Your task to perform on an android device: turn off notifications settings in the gmail app Image 0: 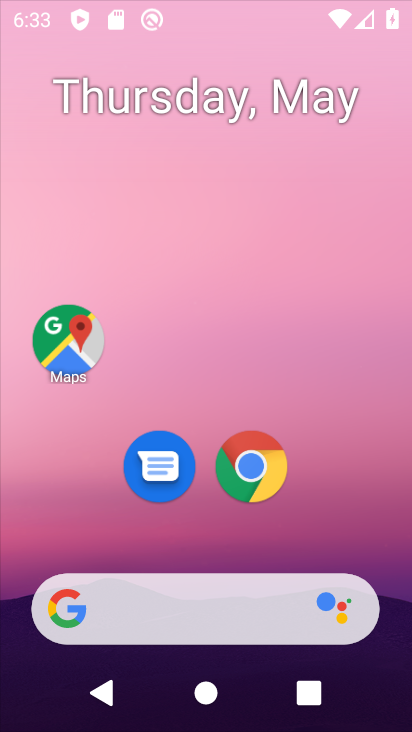
Step 0: click (341, 19)
Your task to perform on an android device: turn off notifications settings in the gmail app Image 1: 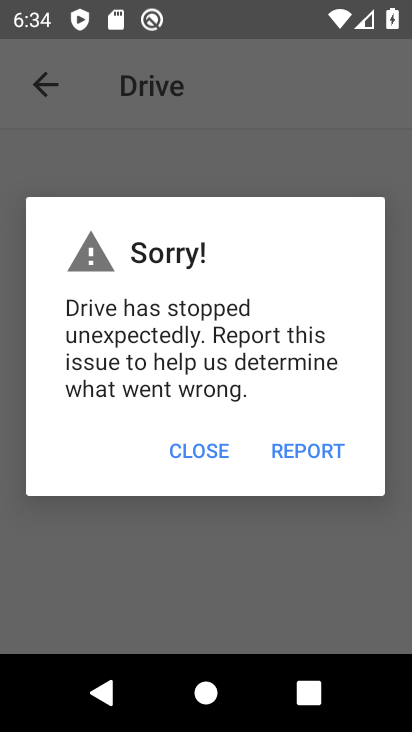
Step 1: press home button
Your task to perform on an android device: turn off notifications settings in the gmail app Image 2: 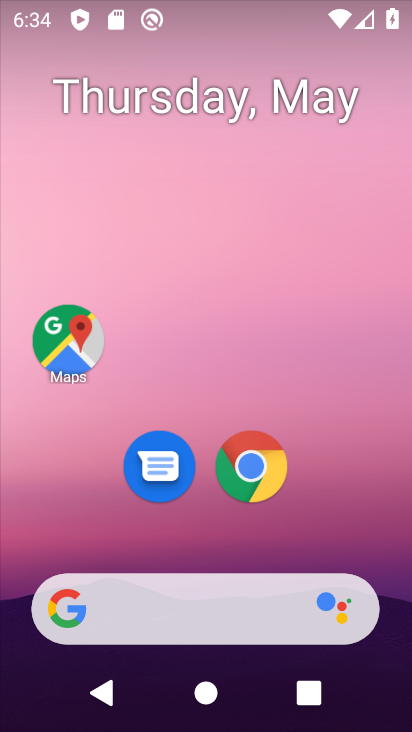
Step 2: drag from (331, 533) to (258, 50)
Your task to perform on an android device: turn off notifications settings in the gmail app Image 3: 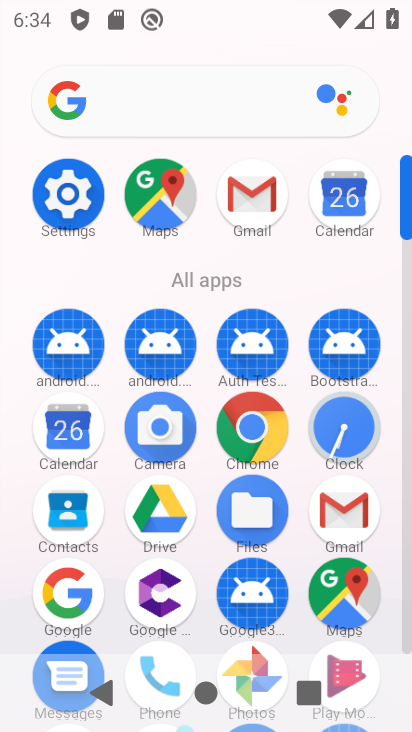
Step 3: click (242, 206)
Your task to perform on an android device: turn off notifications settings in the gmail app Image 4: 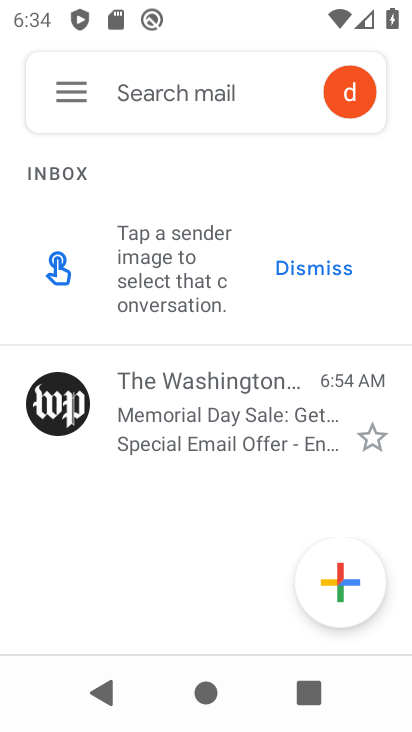
Step 4: click (69, 85)
Your task to perform on an android device: turn off notifications settings in the gmail app Image 5: 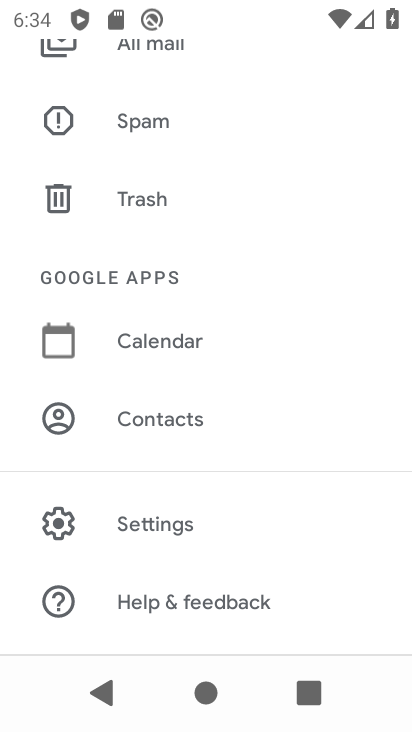
Step 5: click (159, 523)
Your task to perform on an android device: turn off notifications settings in the gmail app Image 6: 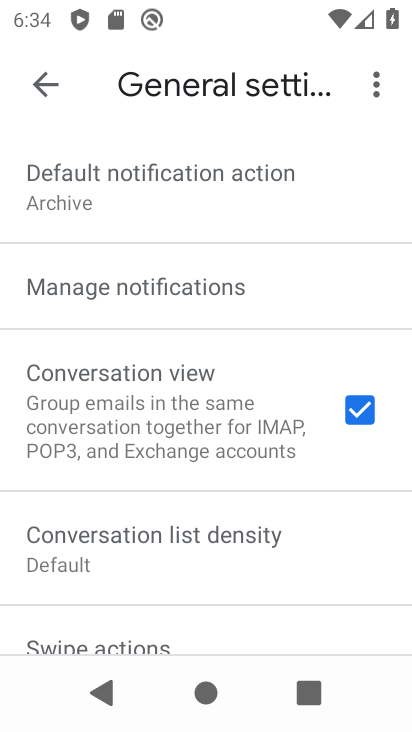
Step 6: click (118, 285)
Your task to perform on an android device: turn off notifications settings in the gmail app Image 7: 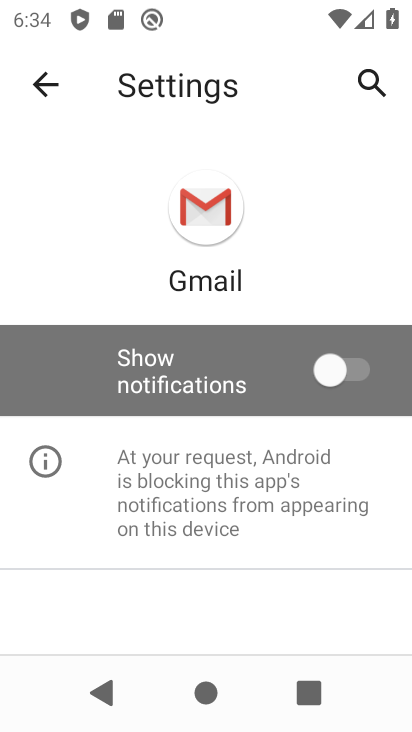
Step 7: task complete